Your task to perform on an android device: Open the stopwatch Image 0: 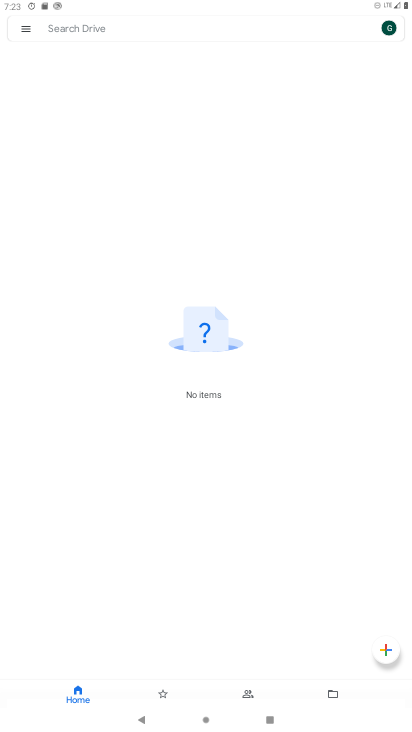
Step 0: press home button
Your task to perform on an android device: Open the stopwatch Image 1: 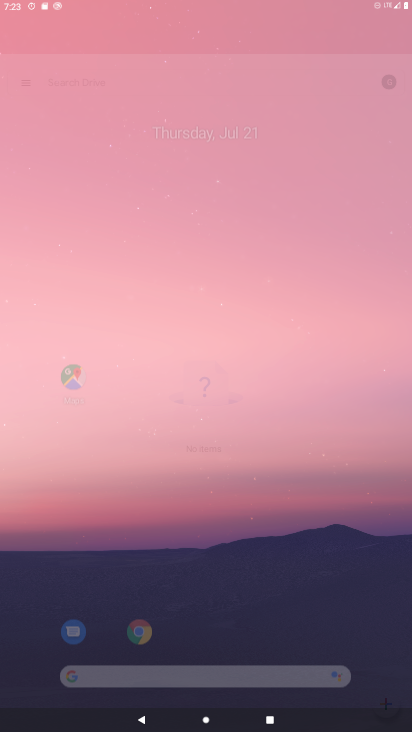
Step 1: drag from (353, 683) to (187, 0)
Your task to perform on an android device: Open the stopwatch Image 2: 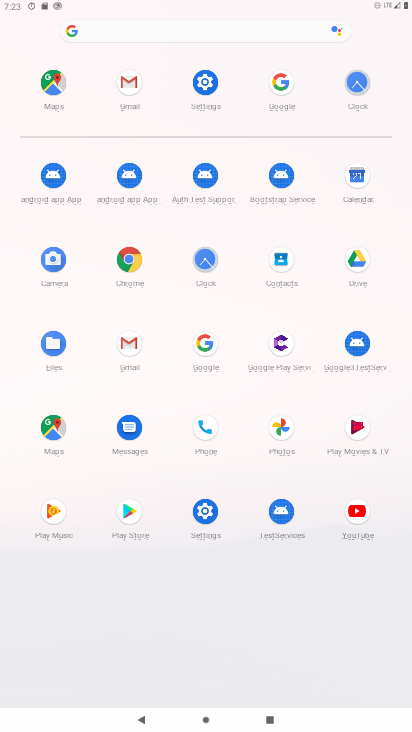
Step 2: click (201, 266)
Your task to perform on an android device: Open the stopwatch Image 3: 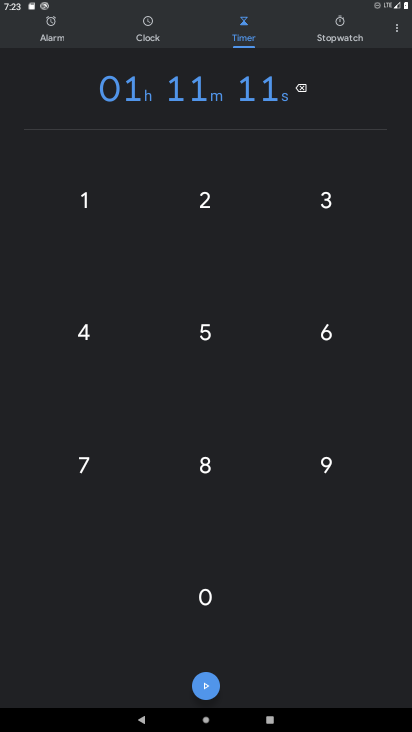
Step 3: click (340, 23)
Your task to perform on an android device: Open the stopwatch Image 4: 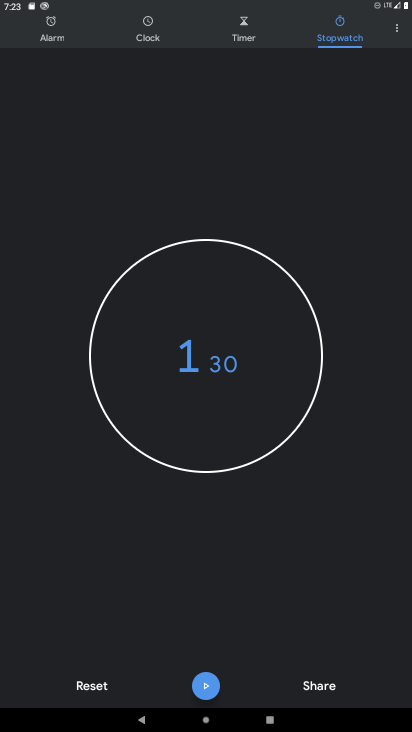
Step 4: task complete